Your task to perform on an android device: set an alarm Image 0: 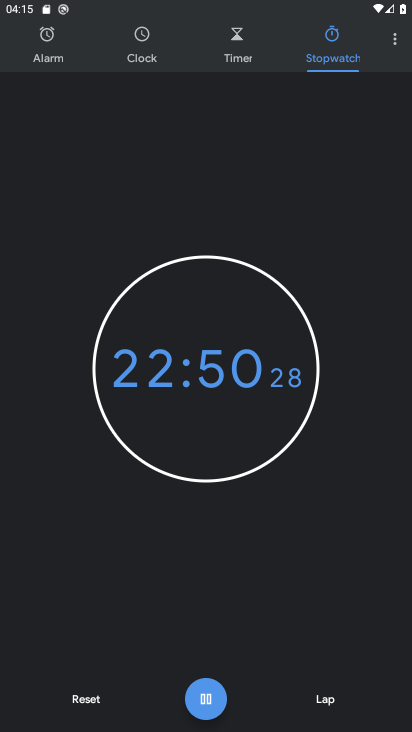
Step 0: press home button
Your task to perform on an android device: set an alarm Image 1: 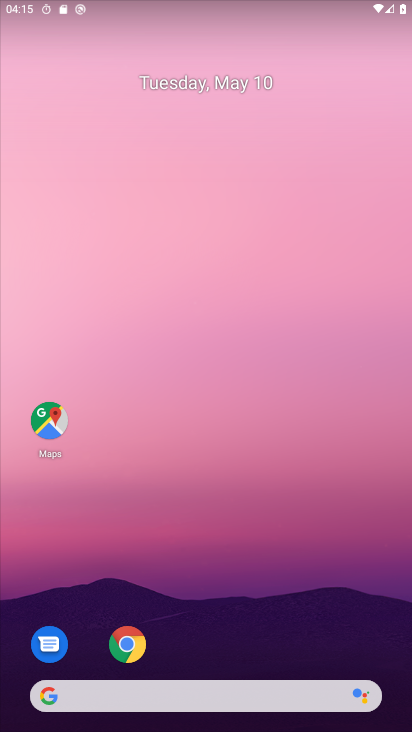
Step 1: drag from (215, 649) to (216, 58)
Your task to perform on an android device: set an alarm Image 2: 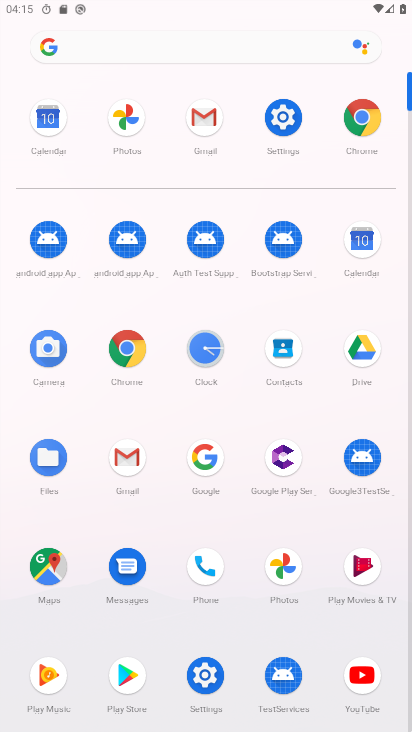
Step 2: click (204, 343)
Your task to perform on an android device: set an alarm Image 3: 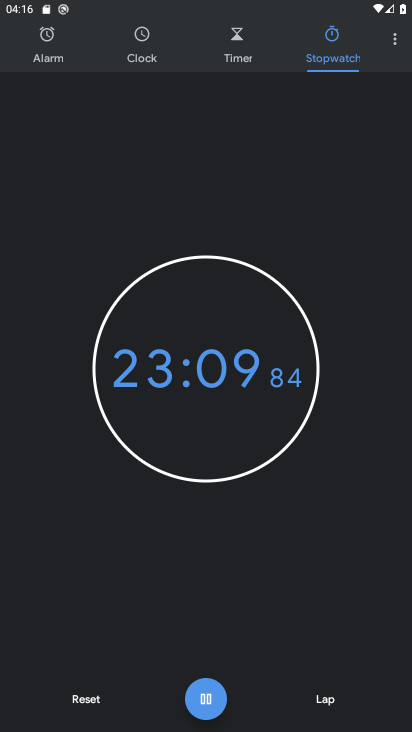
Step 3: click (75, 700)
Your task to perform on an android device: set an alarm Image 4: 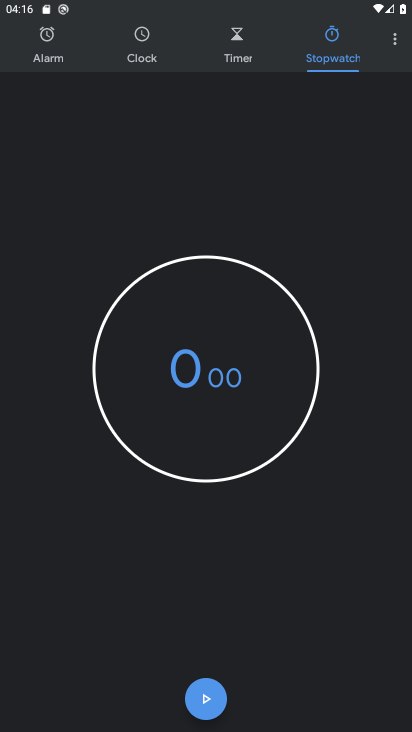
Step 4: click (39, 44)
Your task to perform on an android device: set an alarm Image 5: 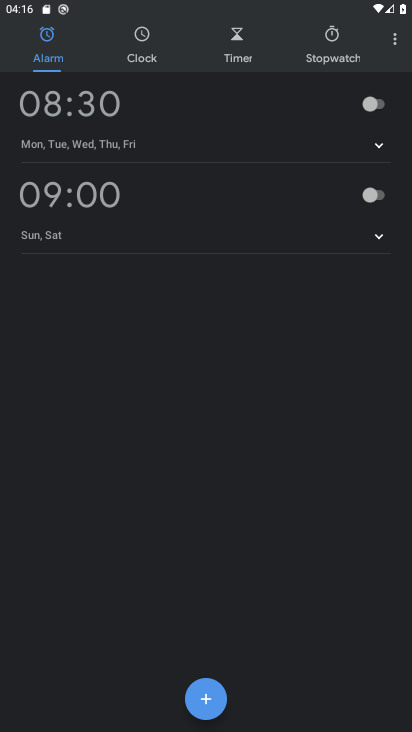
Step 5: click (241, 113)
Your task to perform on an android device: set an alarm Image 6: 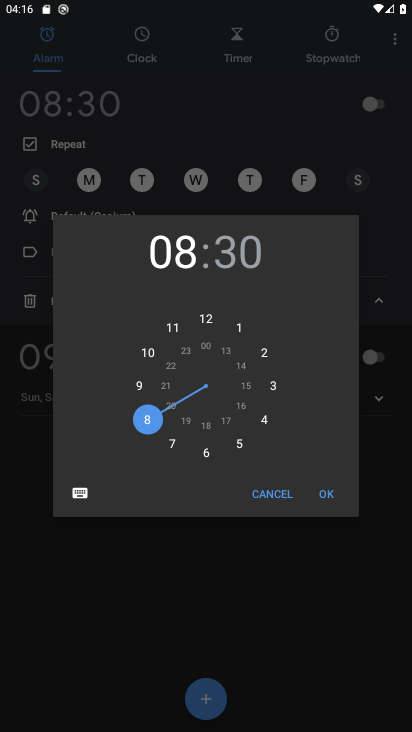
Step 6: click (325, 492)
Your task to perform on an android device: set an alarm Image 7: 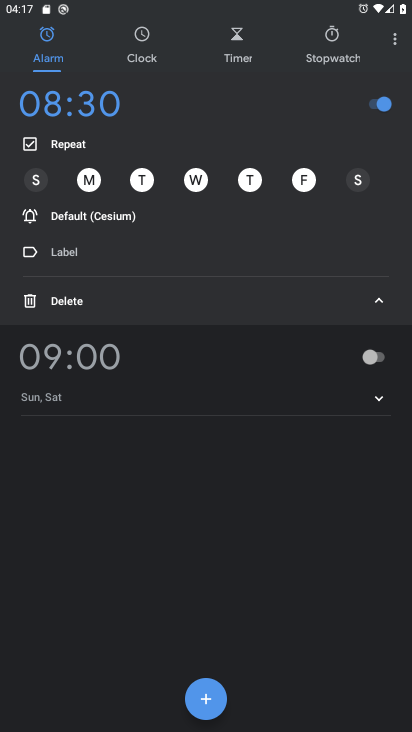
Step 7: task complete